Your task to perform on an android device: change text size in settings app Image 0: 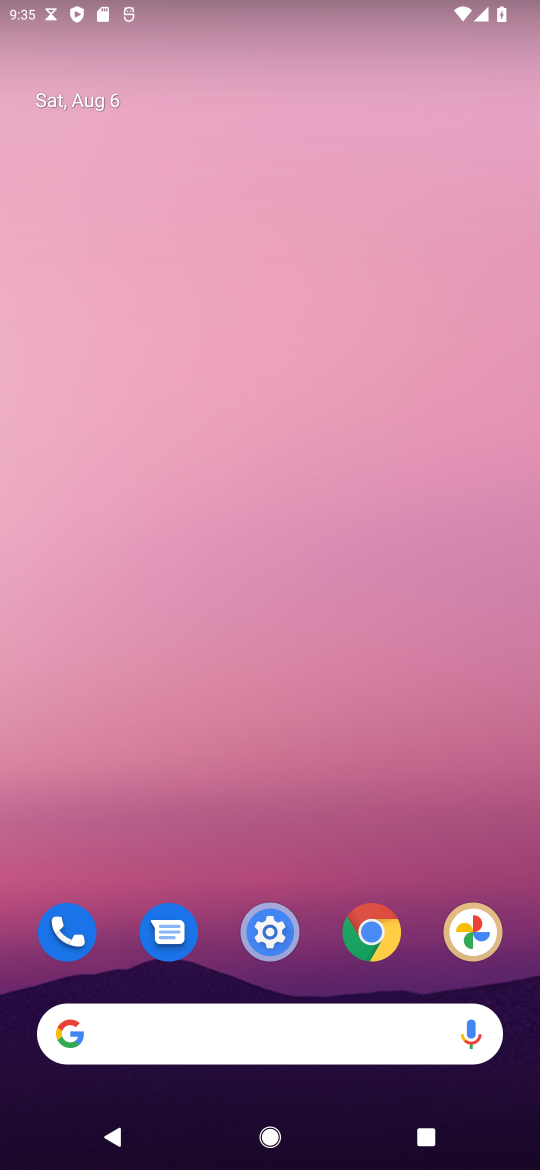
Step 0: click (267, 932)
Your task to perform on an android device: change text size in settings app Image 1: 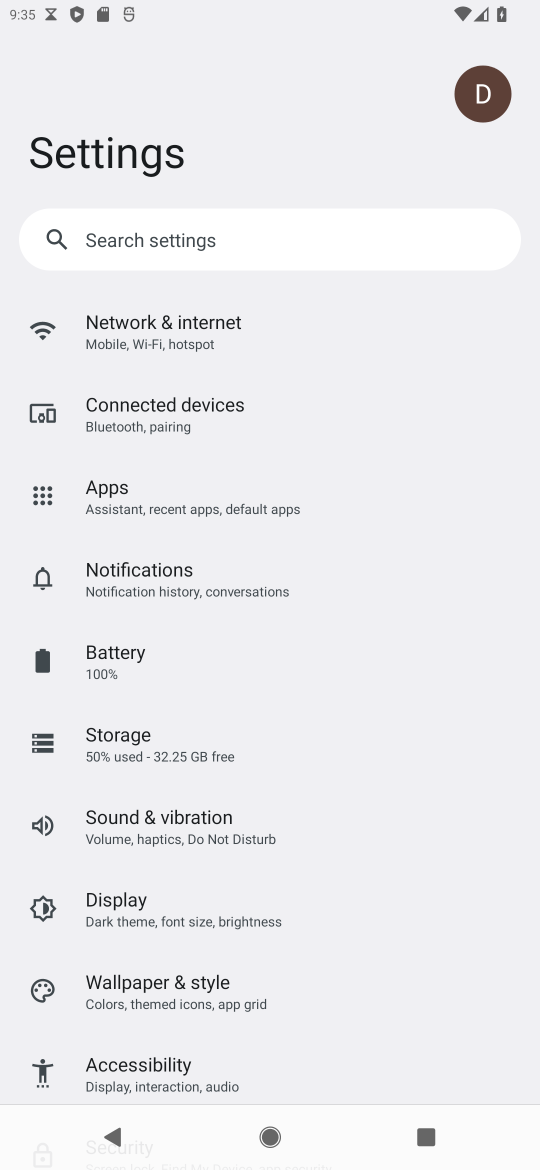
Step 1: drag from (179, 787) to (276, 637)
Your task to perform on an android device: change text size in settings app Image 2: 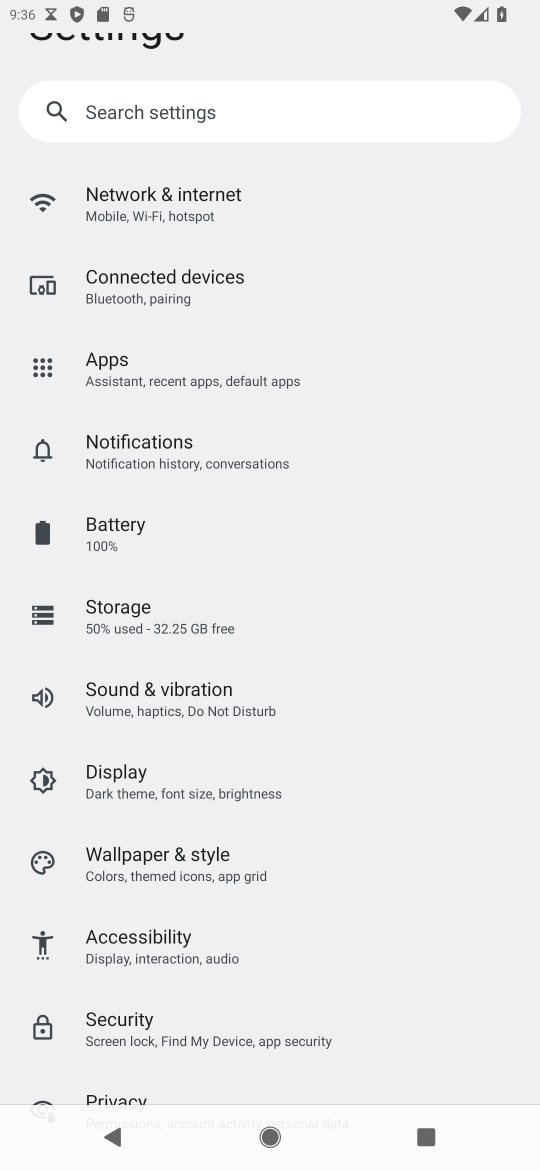
Step 2: drag from (188, 834) to (244, 730)
Your task to perform on an android device: change text size in settings app Image 3: 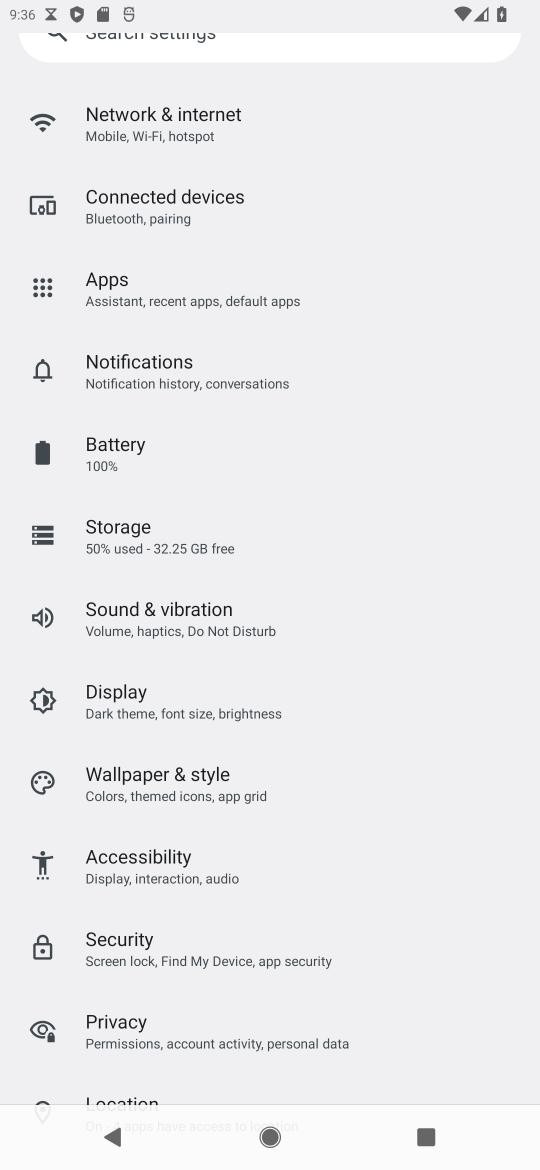
Step 3: drag from (146, 822) to (223, 698)
Your task to perform on an android device: change text size in settings app Image 4: 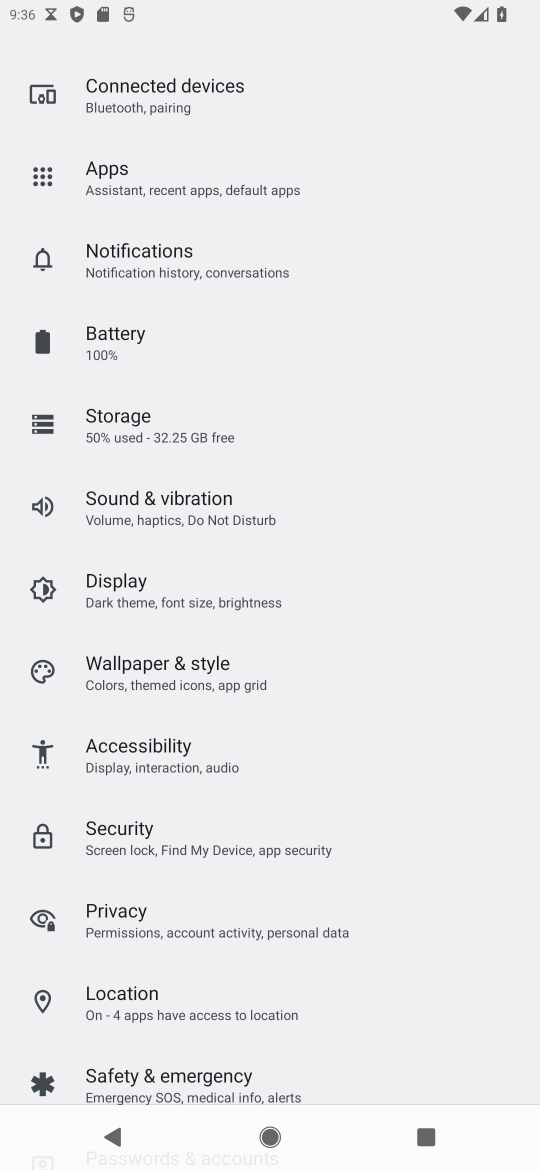
Step 4: drag from (160, 803) to (254, 679)
Your task to perform on an android device: change text size in settings app Image 5: 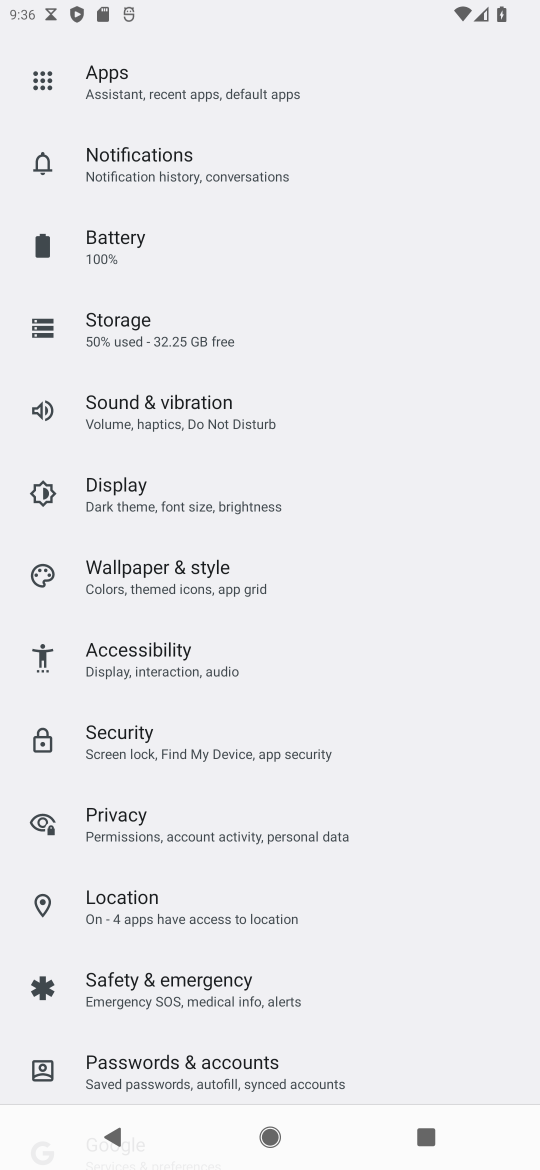
Step 5: drag from (133, 884) to (224, 757)
Your task to perform on an android device: change text size in settings app Image 6: 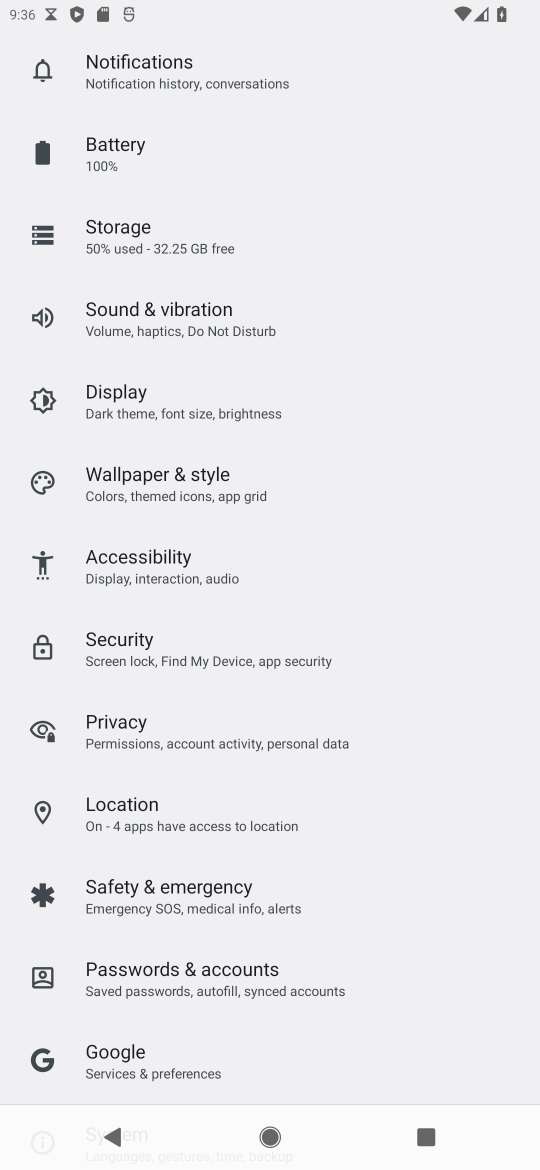
Step 6: drag from (141, 941) to (238, 758)
Your task to perform on an android device: change text size in settings app Image 7: 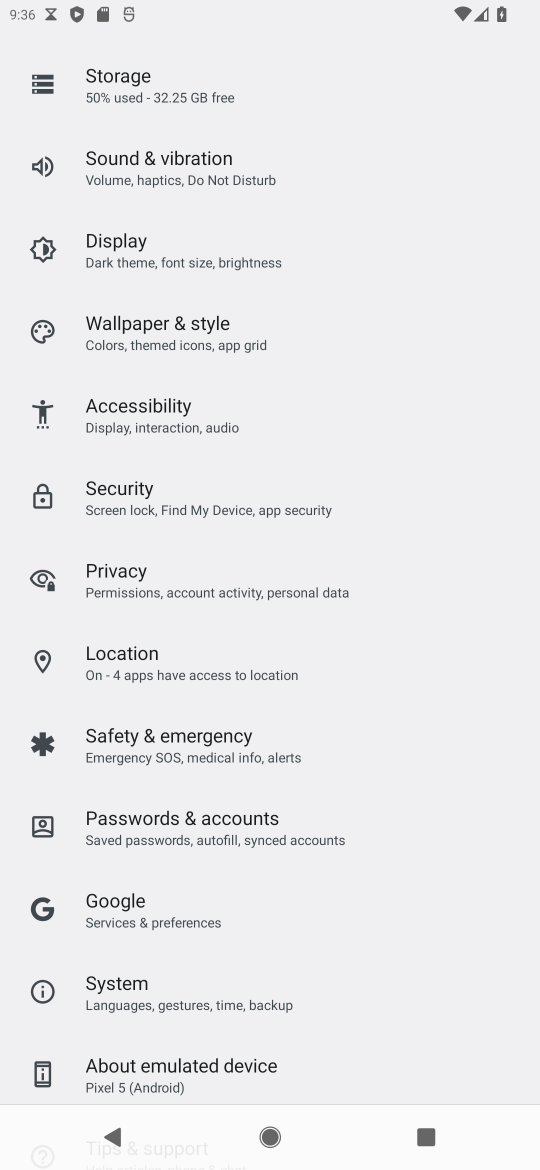
Step 7: drag from (184, 960) to (284, 745)
Your task to perform on an android device: change text size in settings app Image 8: 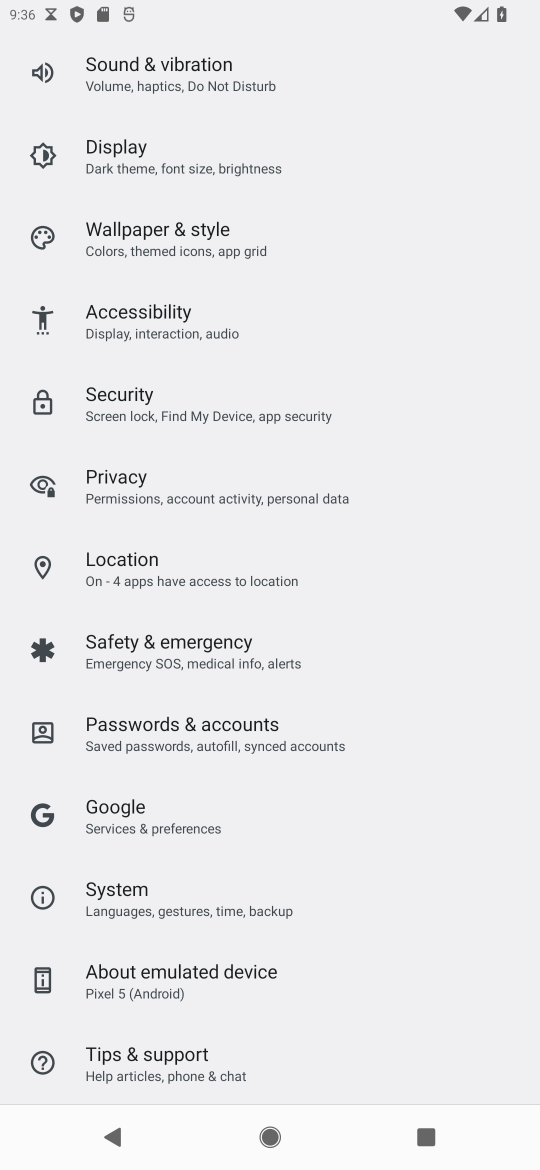
Step 8: click (132, 336)
Your task to perform on an android device: change text size in settings app Image 9: 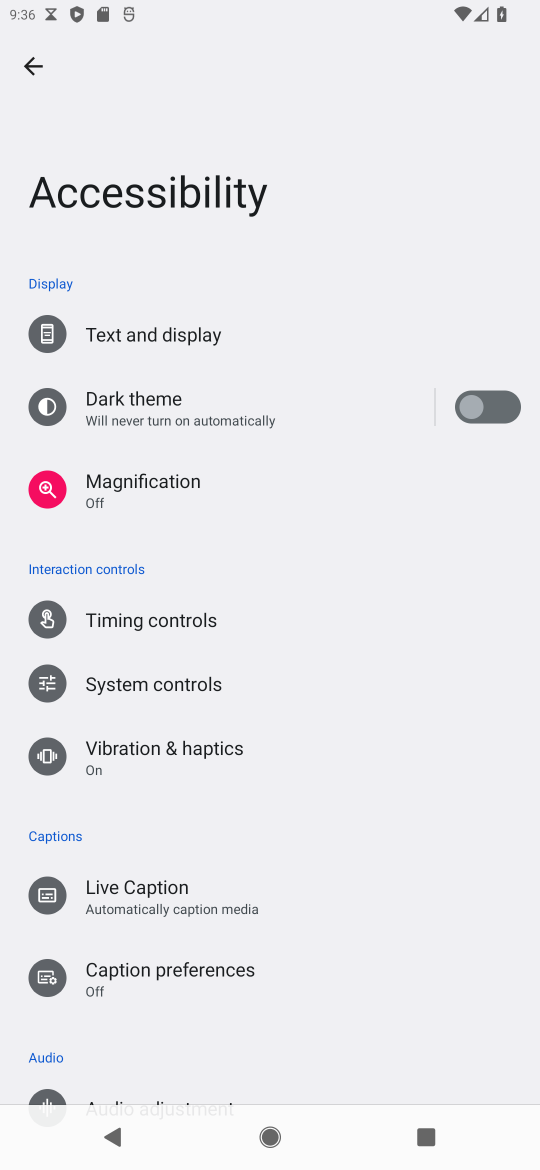
Step 9: click (171, 347)
Your task to perform on an android device: change text size in settings app Image 10: 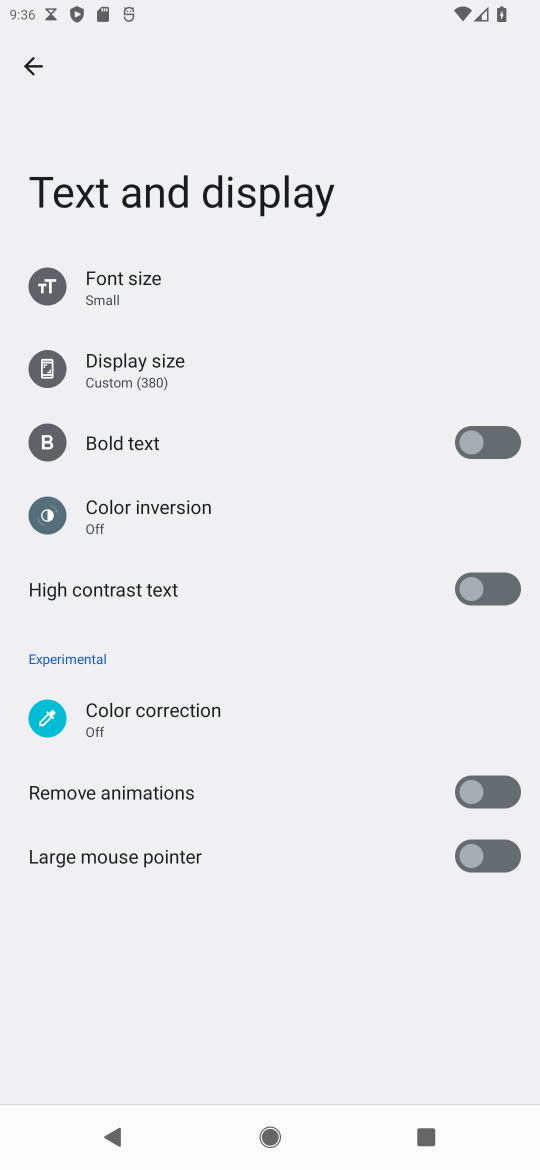
Step 10: click (123, 296)
Your task to perform on an android device: change text size in settings app Image 11: 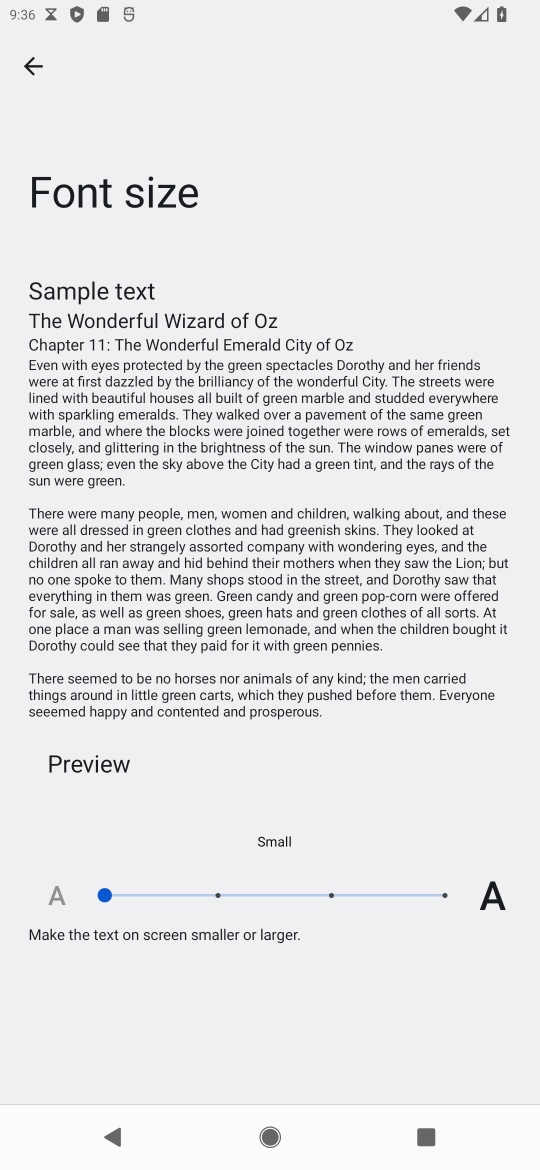
Step 11: click (330, 897)
Your task to perform on an android device: change text size in settings app Image 12: 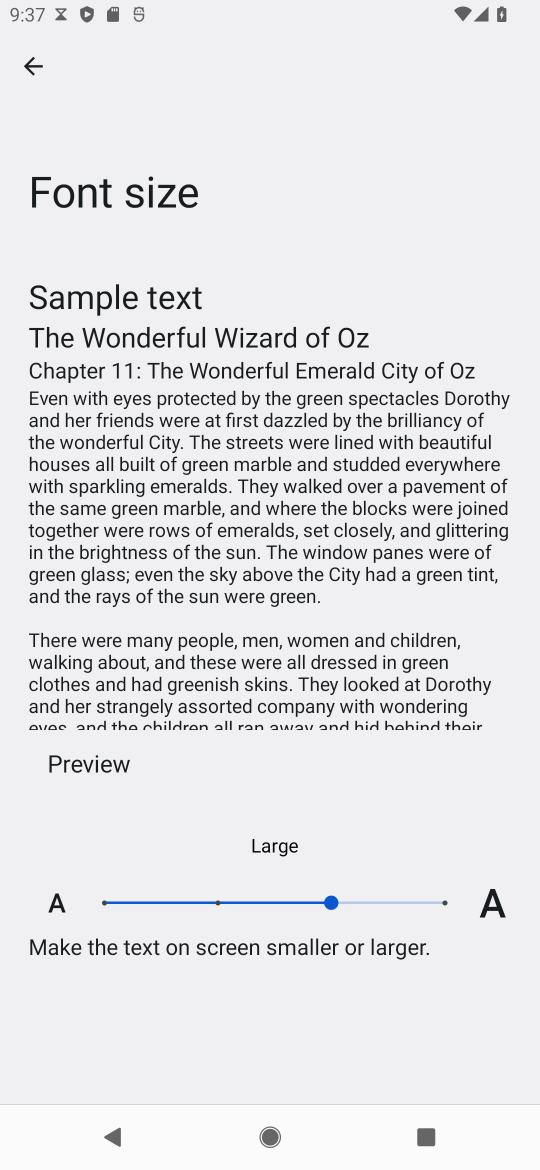
Step 12: task complete